Your task to perform on an android device: Open Android settings Image 0: 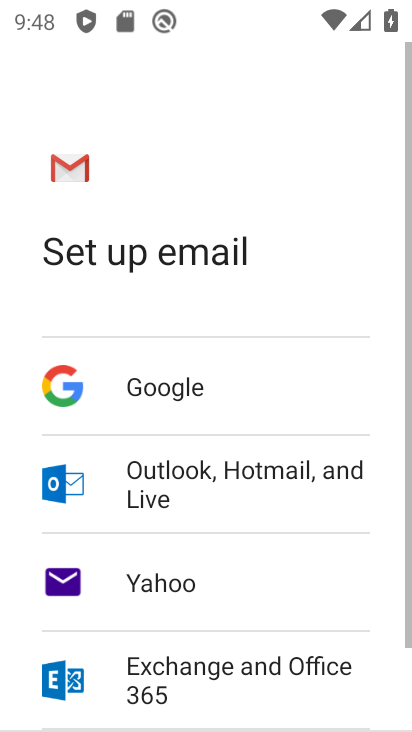
Step 0: press home button
Your task to perform on an android device: Open Android settings Image 1: 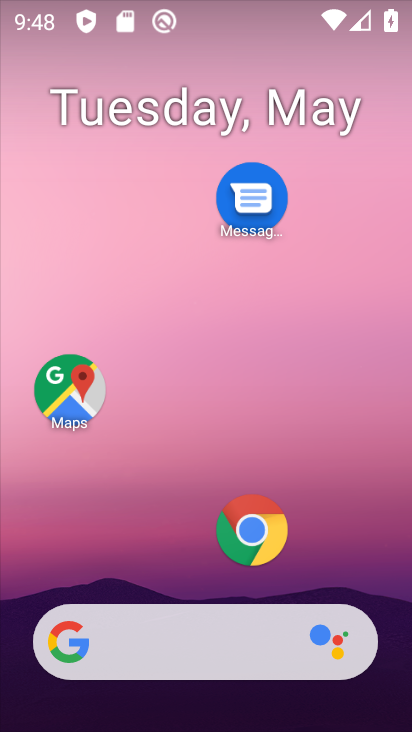
Step 1: click (240, 530)
Your task to perform on an android device: Open Android settings Image 2: 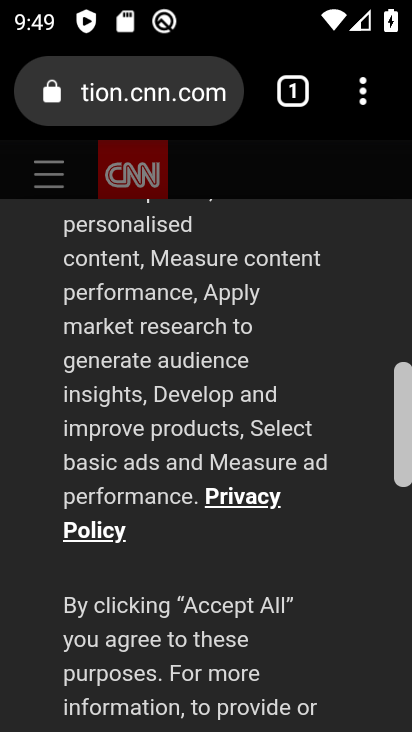
Step 2: press home button
Your task to perform on an android device: Open Android settings Image 3: 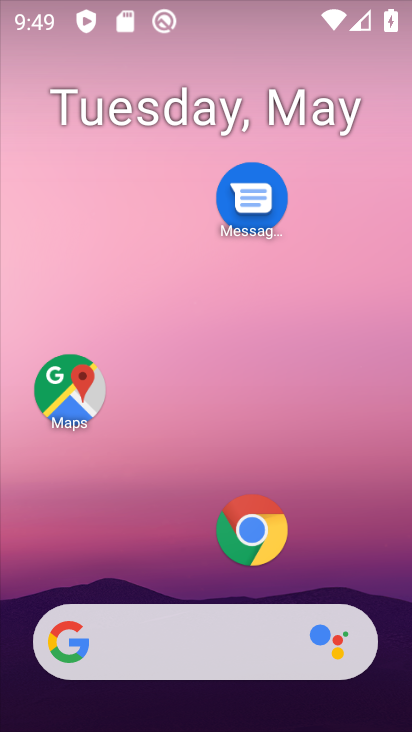
Step 3: drag from (185, 566) to (221, 74)
Your task to perform on an android device: Open Android settings Image 4: 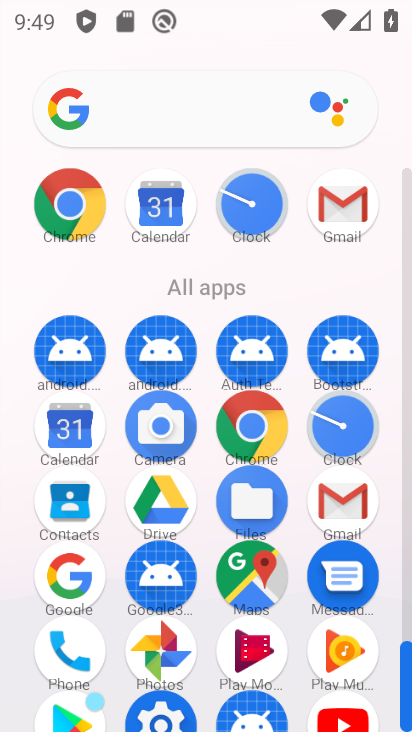
Step 4: click (145, 718)
Your task to perform on an android device: Open Android settings Image 5: 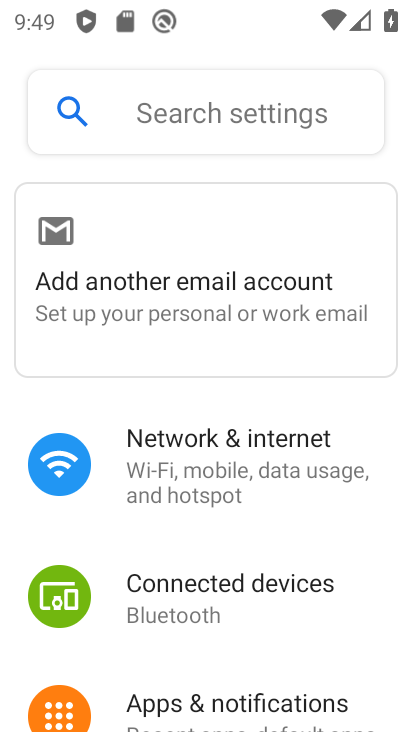
Step 5: drag from (203, 668) to (237, 350)
Your task to perform on an android device: Open Android settings Image 6: 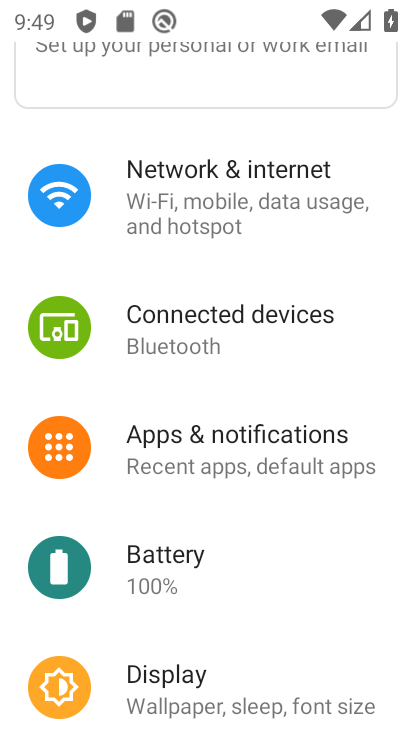
Step 6: drag from (221, 610) to (243, 333)
Your task to perform on an android device: Open Android settings Image 7: 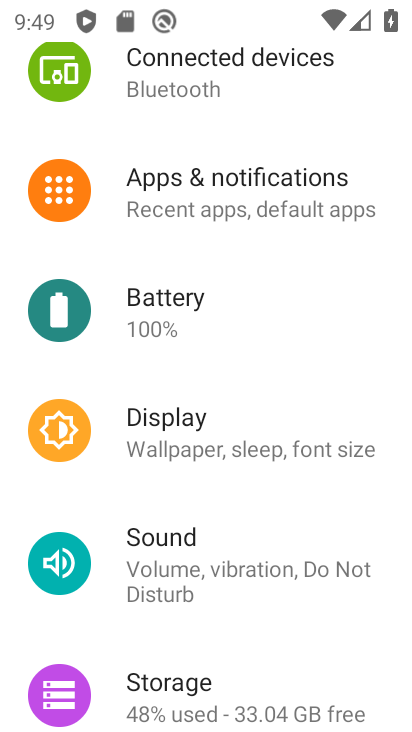
Step 7: drag from (211, 658) to (215, 241)
Your task to perform on an android device: Open Android settings Image 8: 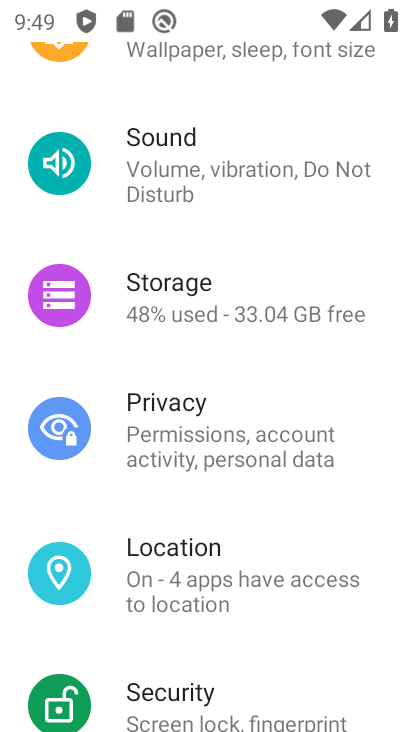
Step 8: drag from (206, 611) to (226, 247)
Your task to perform on an android device: Open Android settings Image 9: 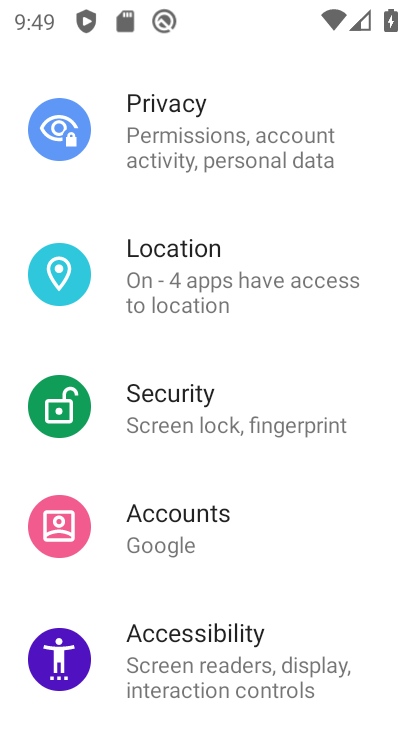
Step 9: drag from (213, 599) to (248, 250)
Your task to perform on an android device: Open Android settings Image 10: 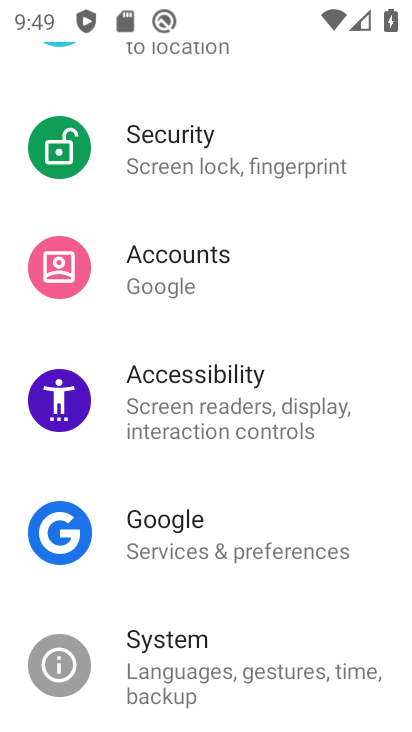
Step 10: drag from (204, 656) to (241, 314)
Your task to perform on an android device: Open Android settings Image 11: 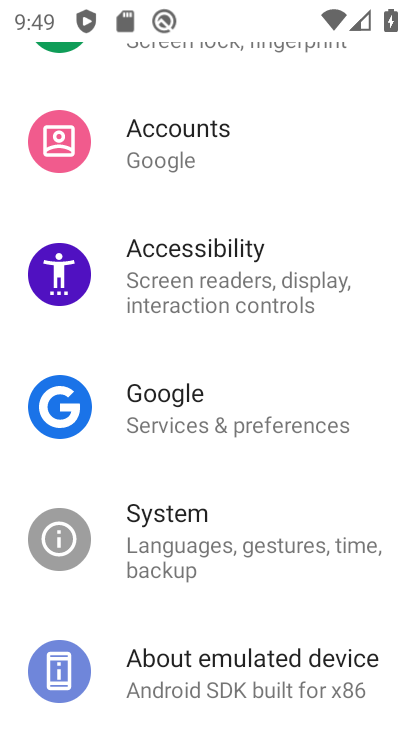
Step 11: click (197, 702)
Your task to perform on an android device: Open Android settings Image 12: 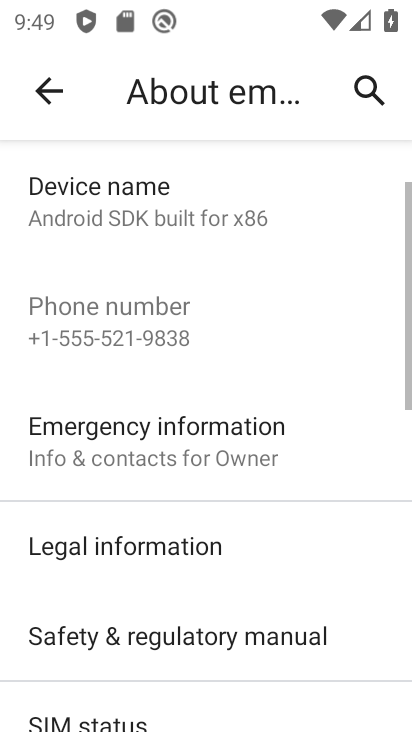
Step 12: drag from (185, 676) to (188, 333)
Your task to perform on an android device: Open Android settings Image 13: 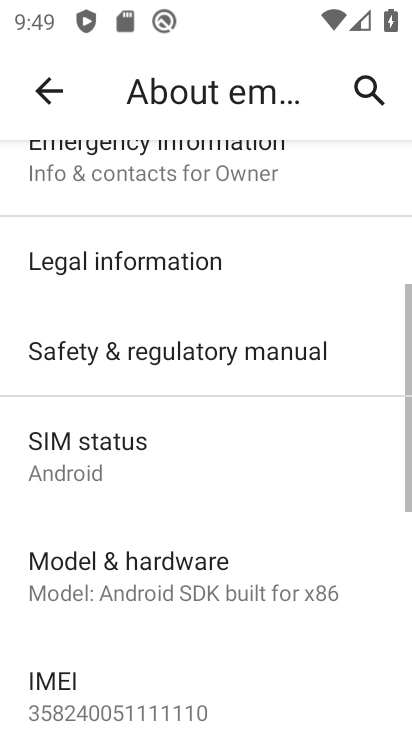
Step 13: drag from (208, 656) to (208, 462)
Your task to perform on an android device: Open Android settings Image 14: 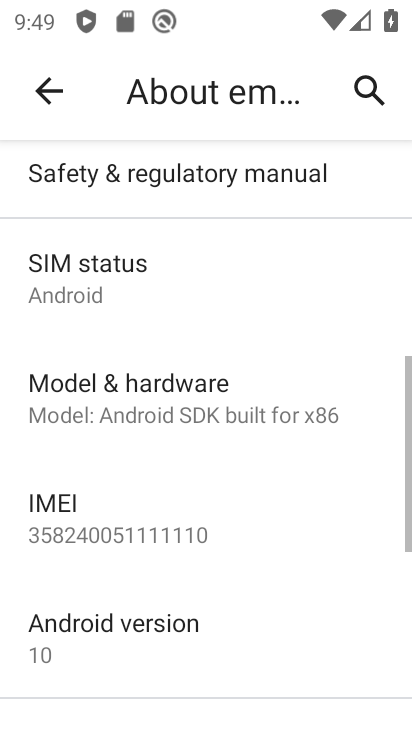
Step 14: drag from (173, 649) to (197, 289)
Your task to perform on an android device: Open Android settings Image 15: 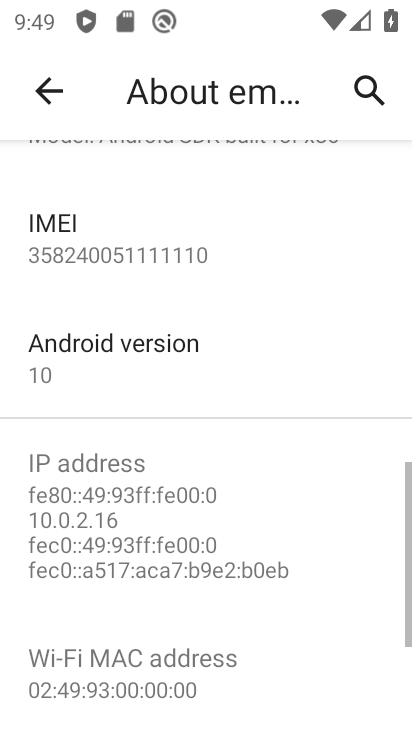
Step 15: click (125, 353)
Your task to perform on an android device: Open Android settings Image 16: 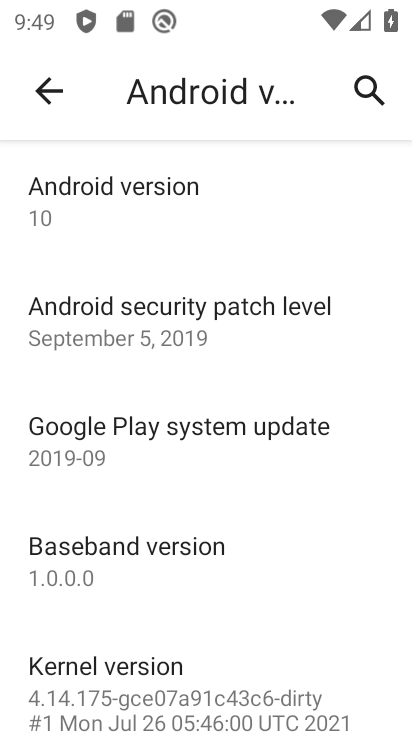
Step 16: task complete